Your task to perform on an android device: turn off javascript in the chrome app Image 0: 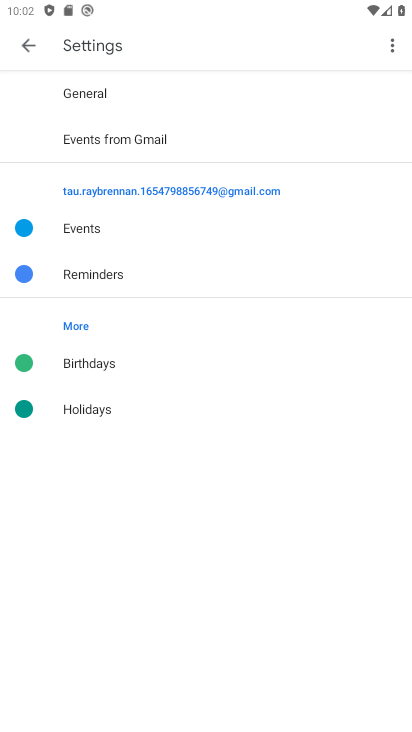
Step 0: press home button
Your task to perform on an android device: turn off javascript in the chrome app Image 1: 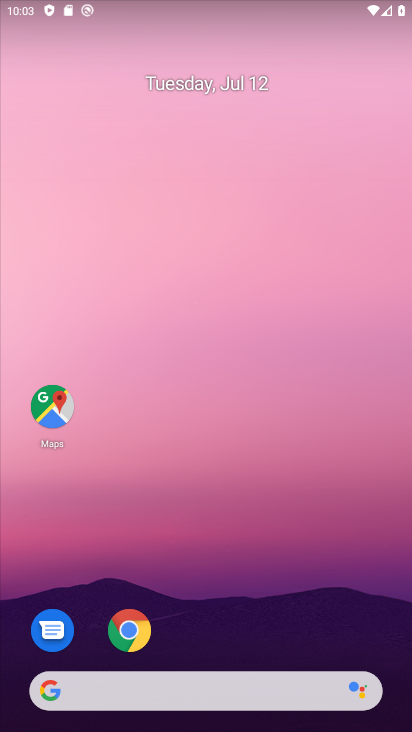
Step 1: click (120, 615)
Your task to perform on an android device: turn off javascript in the chrome app Image 2: 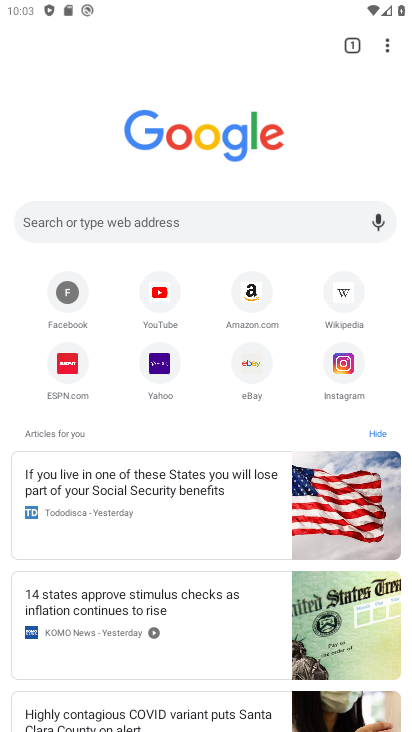
Step 2: click (402, 40)
Your task to perform on an android device: turn off javascript in the chrome app Image 3: 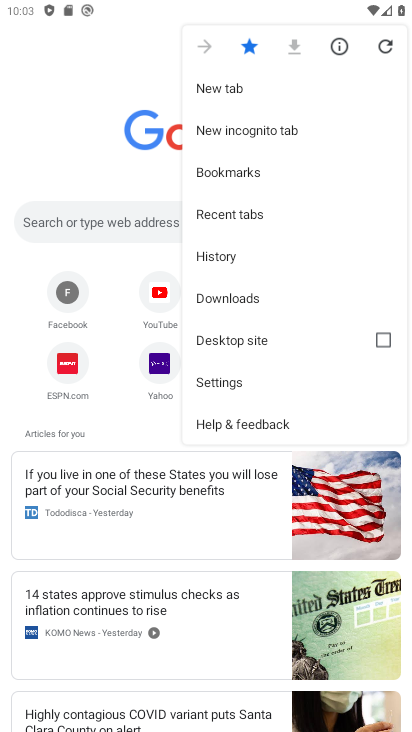
Step 3: click (253, 387)
Your task to perform on an android device: turn off javascript in the chrome app Image 4: 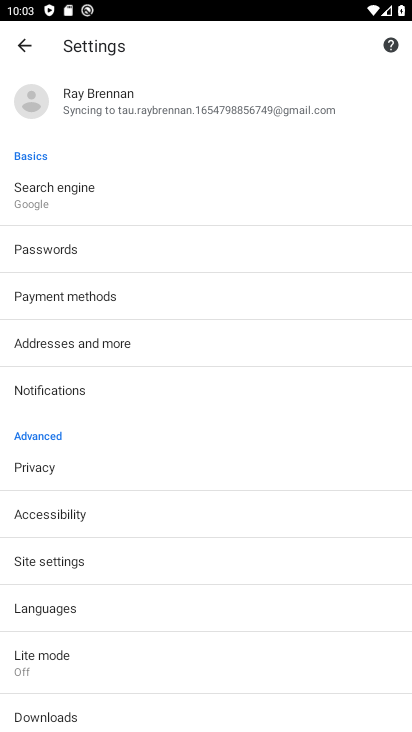
Step 4: click (99, 570)
Your task to perform on an android device: turn off javascript in the chrome app Image 5: 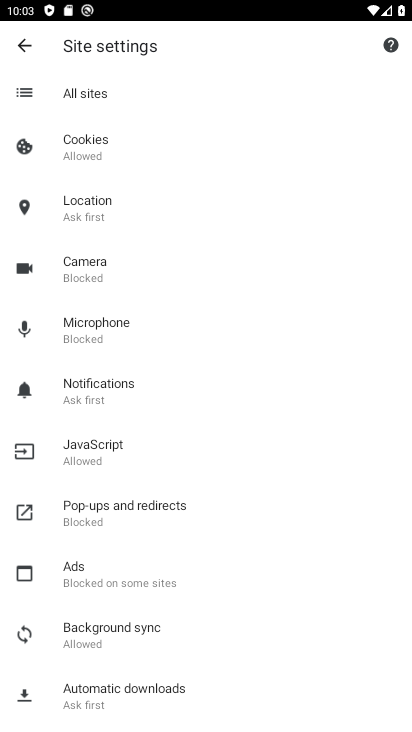
Step 5: click (107, 453)
Your task to perform on an android device: turn off javascript in the chrome app Image 6: 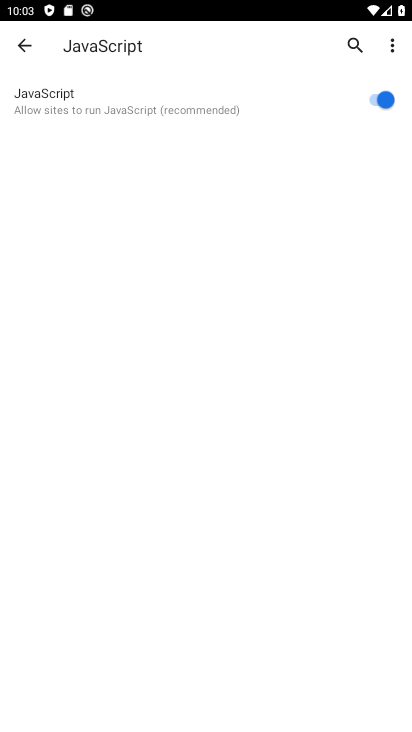
Step 6: click (375, 95)
Your task to perform on an android device: turn off javascript in the chrome app Image 7: 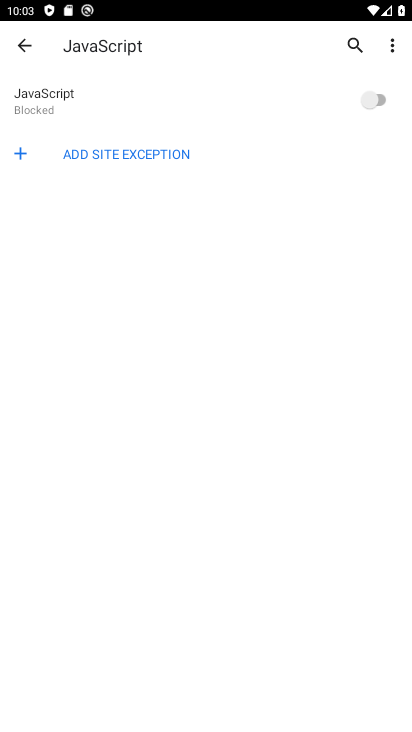
Step 7: task complete